Your task to perform on an android device: Open Amazon Image 0: 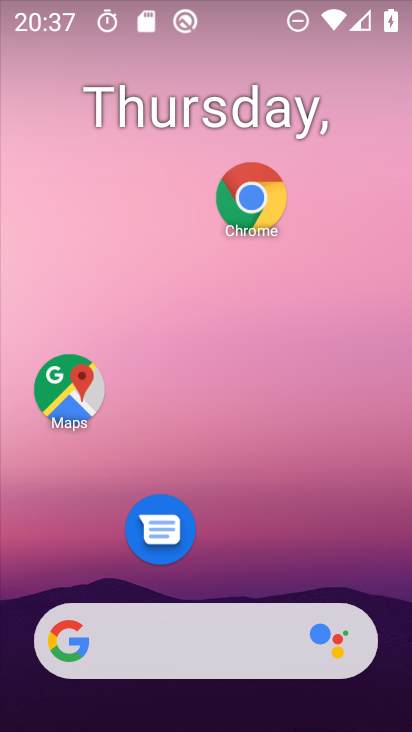
Step 0: click (245, 216)
Your task to perform on an android device: Open Amazon Image 1: 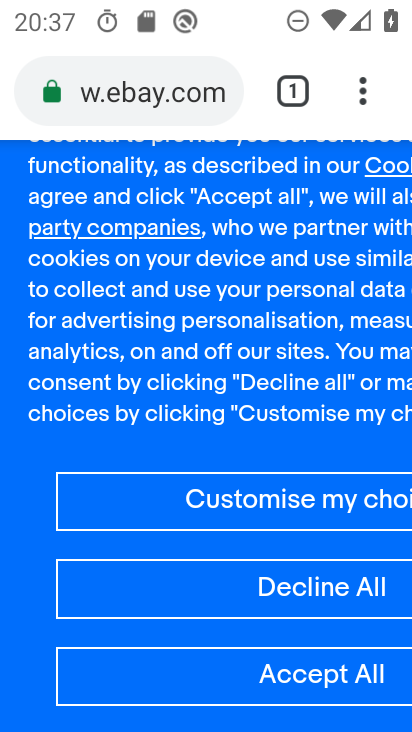
Step 1: press back button
Your task to perform on an android device: Open Amazon Image 2: 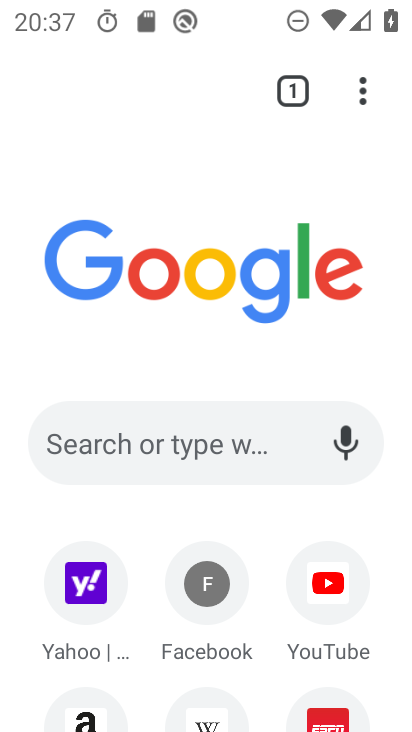
Step 2: drag from (268, 686) to (307, 363)
Your task to perform on an android device: Open Amazon Image 3: 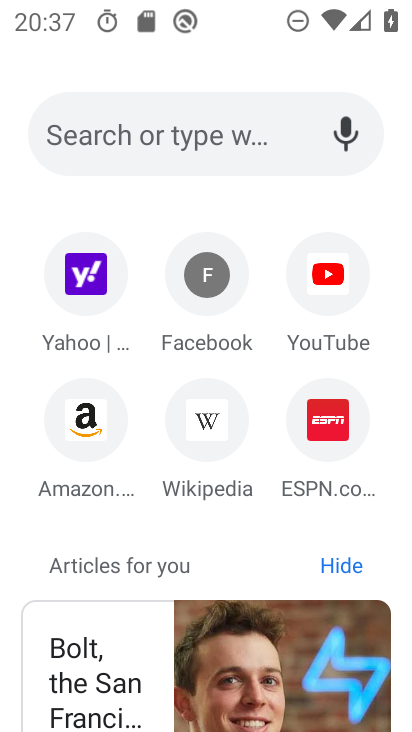
Step 3: click (75, 428)
Your task to perform on an android device: Open Amazon Image 4: 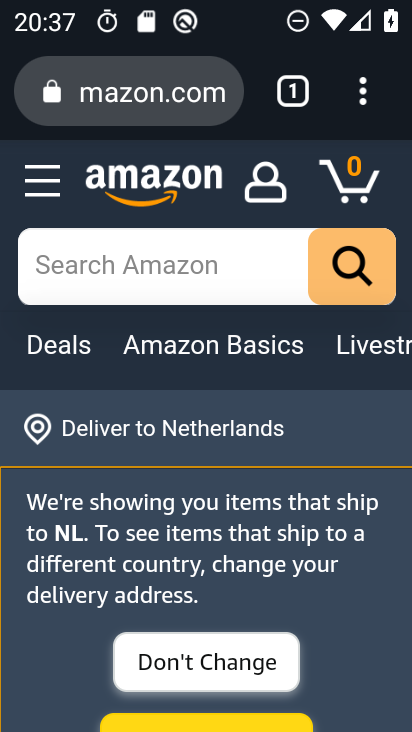
Step 4: task complete